Your task to perform on an android device: Go to internet settings Image 0: 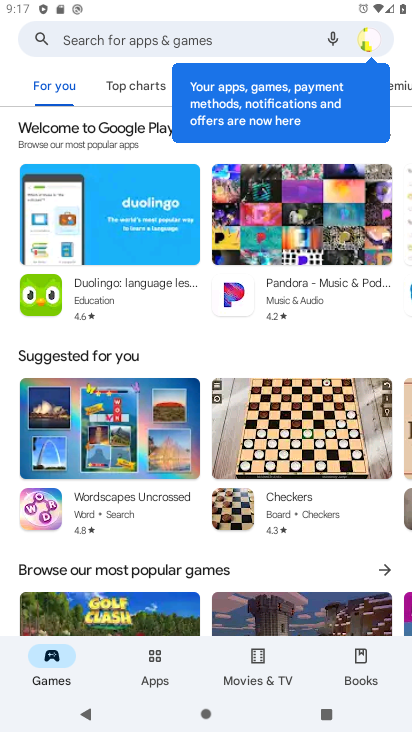
Step 0: press back button
Your task to perform on an android device: Go to internet settings Image 1: 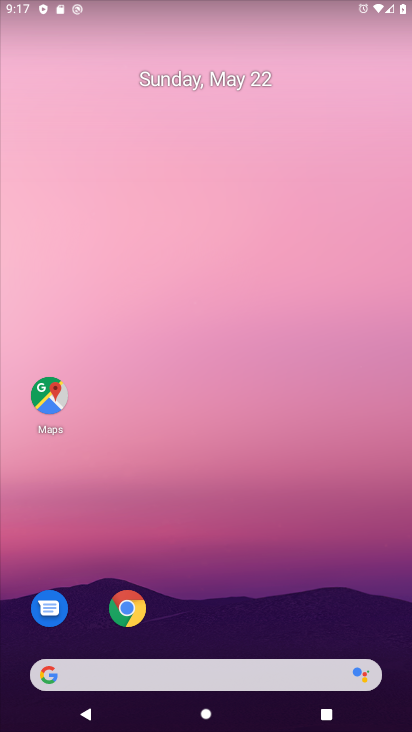
Step 1: drag from (274, 612) to (254, 1)
Your task to perform on an android device: Go to internet settings Image 2: 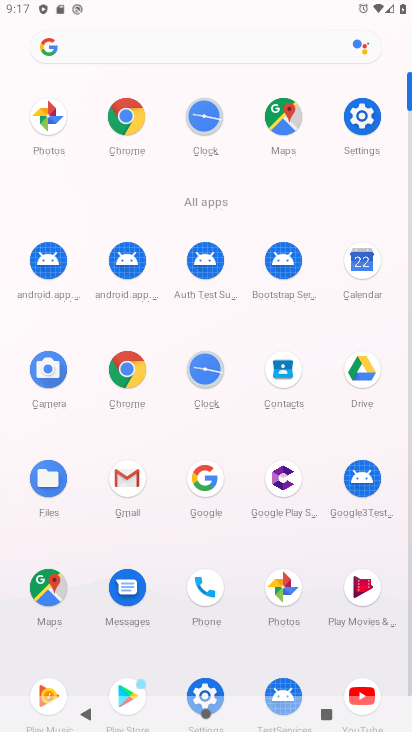
Step 2: click (361, 114)
Your task to perform on an android device: Go to internet settings Image 3: 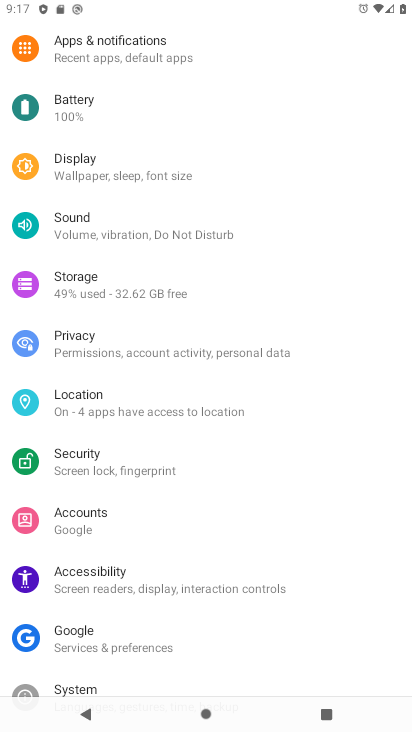
Step 3: drag from (302, 204) to (241, 598)
Your task to perform on an android device: Go to internet settings Image 4: 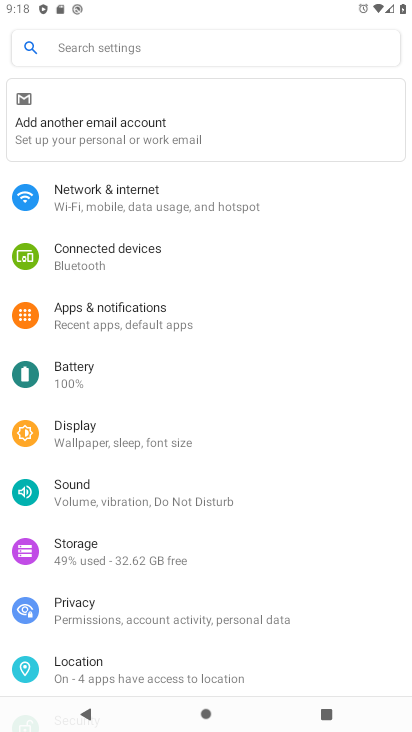
Step 4: click (161, 194)
Your task to perform on an android device: Go to internet settings Image 5: 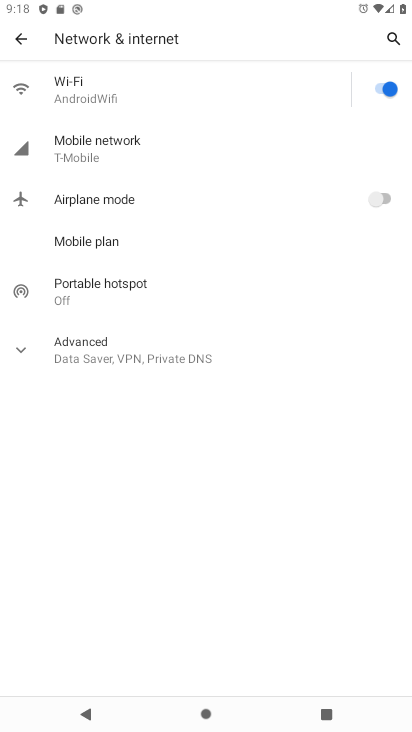
Step 5: click (15, 347)
Your task to perform on an android device: Go to internet settings Image 6: 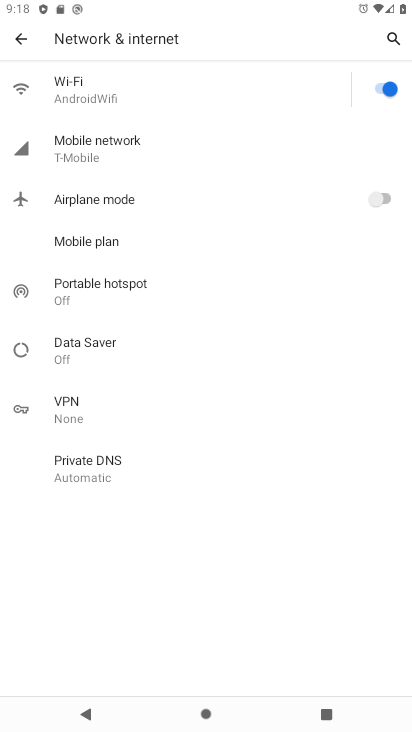
Step 6: task complete